Your task to perform on an android device: delete location history Image 0: 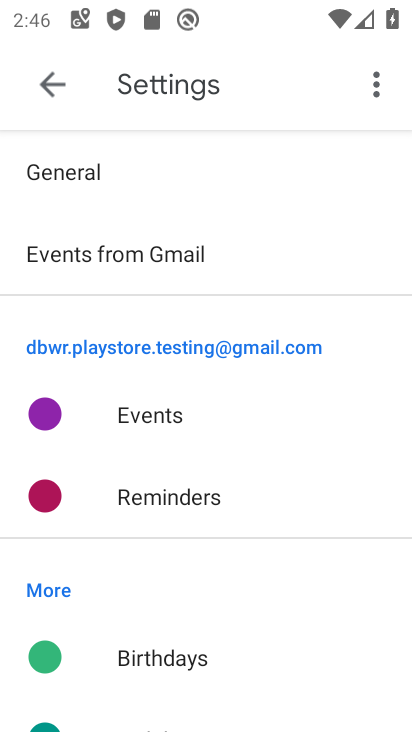
Step 0: press home button
Your task to perform on an android device: delete location history Image 1: 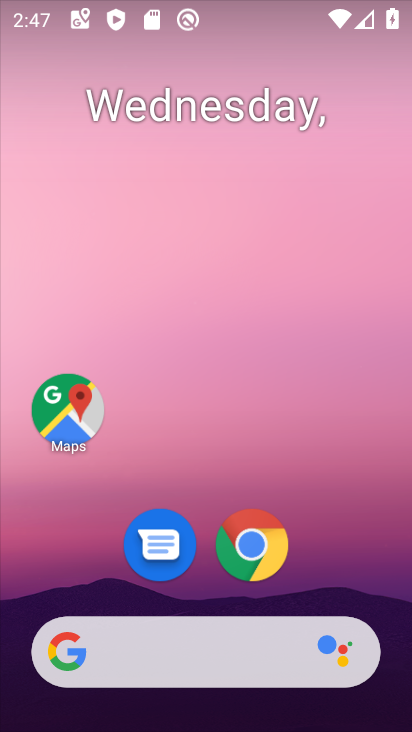
Step 1: click (55, 414)
Your task to perform on an android device: delete location history Image 2: 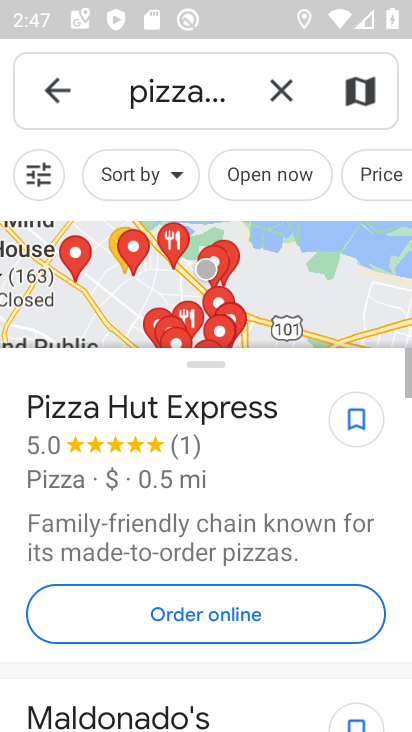
Step 2: click (49, 89)
Your task to perform on an android device: delete location history Image 3: 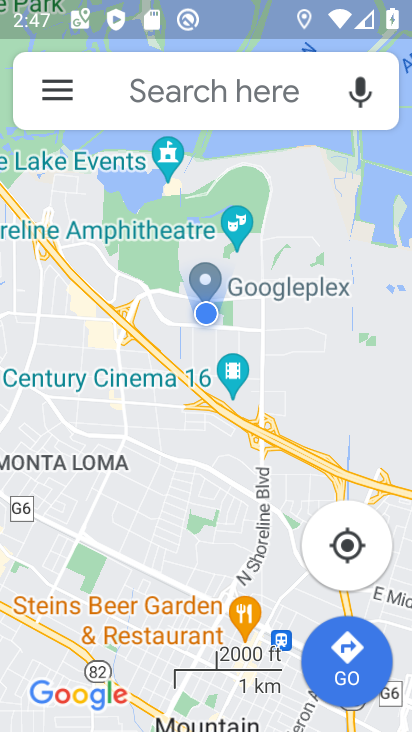
Step 3: click (59, 94)
Your task to perform on an android device: delete location history Image 4: 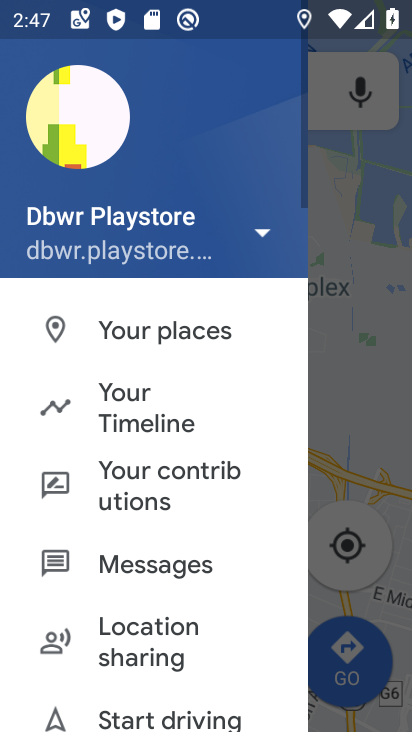
Step 4: click (165, 414)
Your task to perform on an android device: delete location history Image 5: 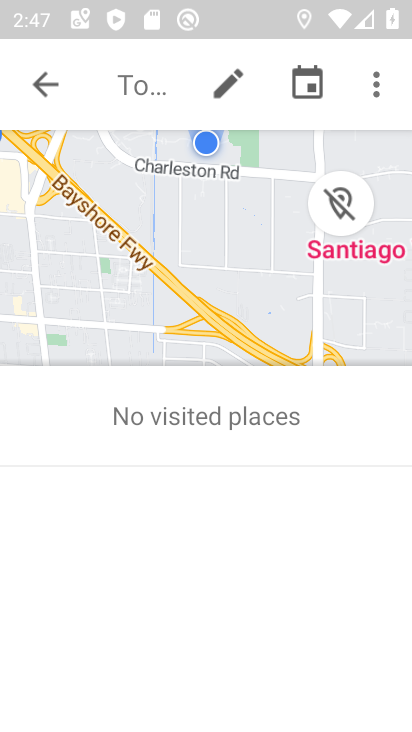
Step 5: click (375, 98)
Your task to perform on an android device: delete location history Image 6: 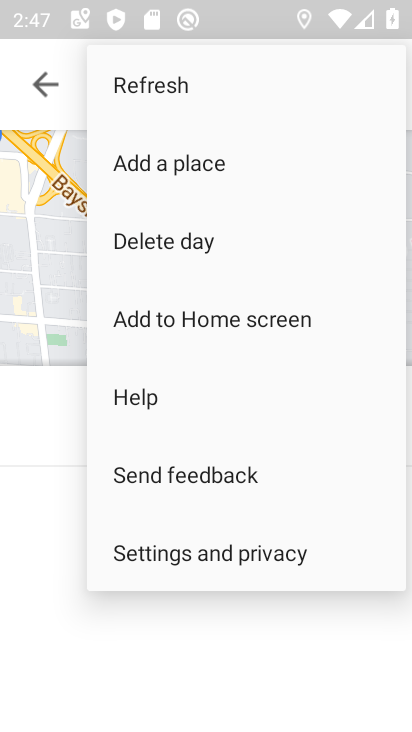
Step 6: click (202, 553)
Your task to perform on an android device: delete location history Image 7: 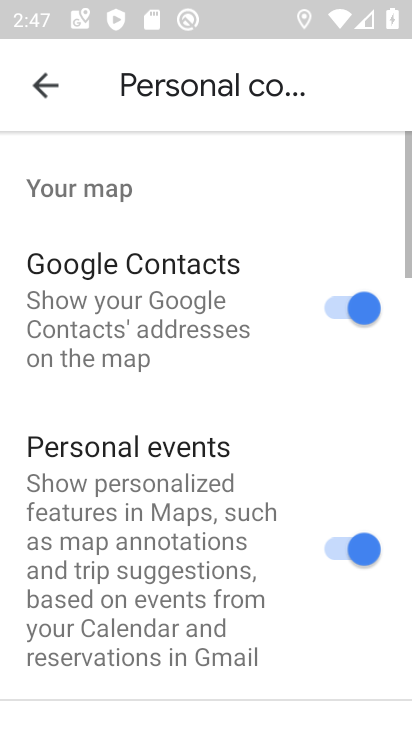
Step 7: drag from (129, 590) to (370, 21)
Your task to perform on an android device: delete location history Image 8: 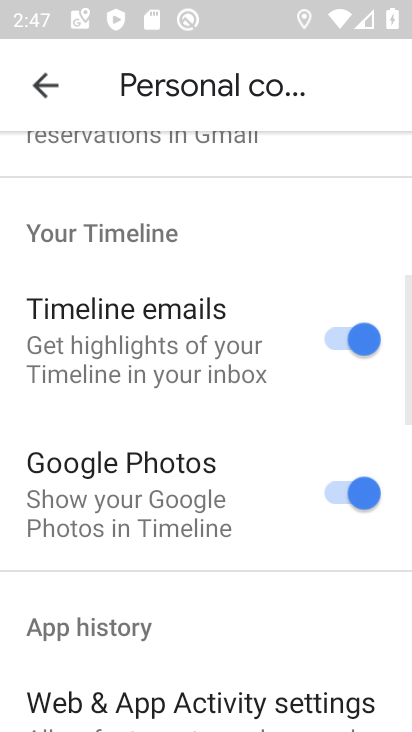
Step 8: drag from (206, 695) to (362, 198)
Your task to perform on an android device: delete location history Image 9: 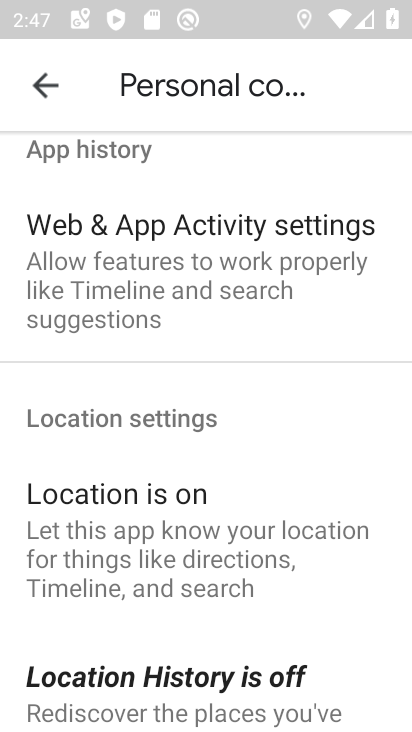
Step 9: drag from (201, 600) to (292, 114)
Your task to perform on an android device: delete location history Image 10: 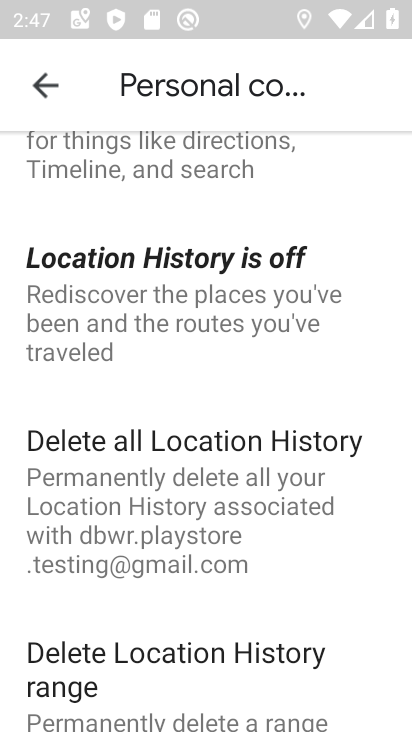
Step 10: click (206, 482)
Your task to perform on an android device: delete location history Image 11: 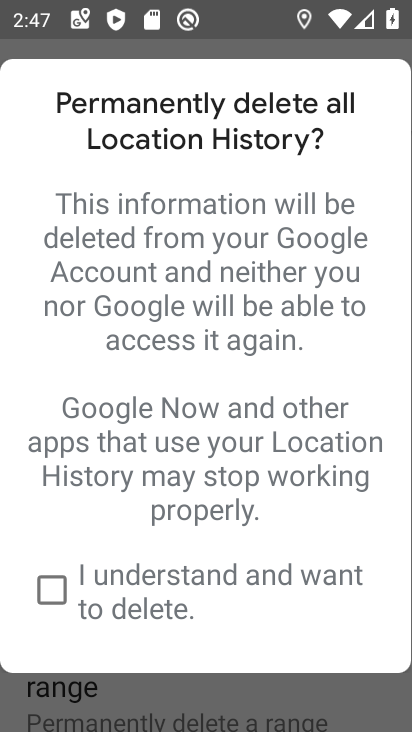
Step 11: click (58, 588)
Your task to perform on an android device: delete location history Image 12: 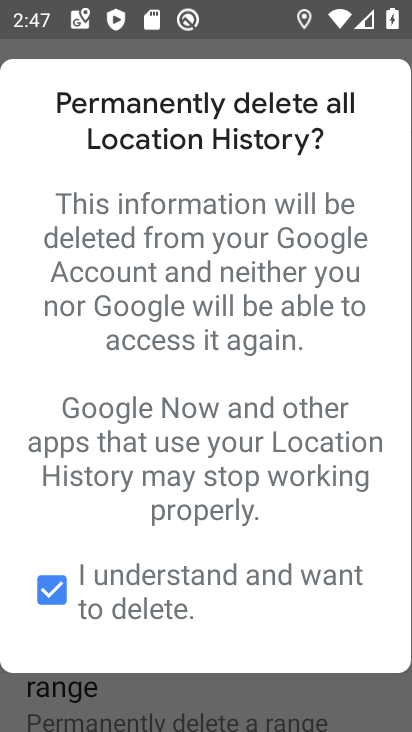
Step 12: task complete